Your task to perform on an android device: Turn off the flashlight Image 0: 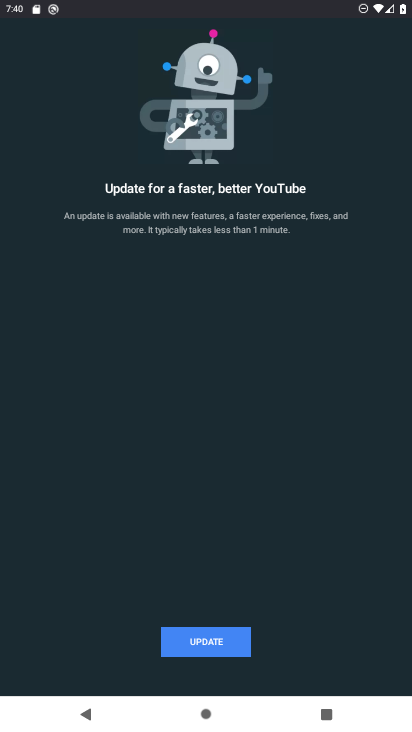
Step 0: press home button
Your task to perform on an android device: Turn off the flashlight Image 1: 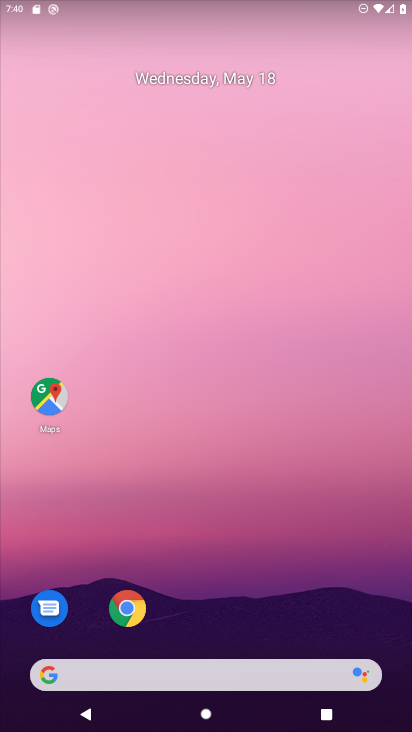
Step 1: drag from (311, 622) to (361, 82)
Your task to perform on an android device: Turn off the flashlight Image 2: 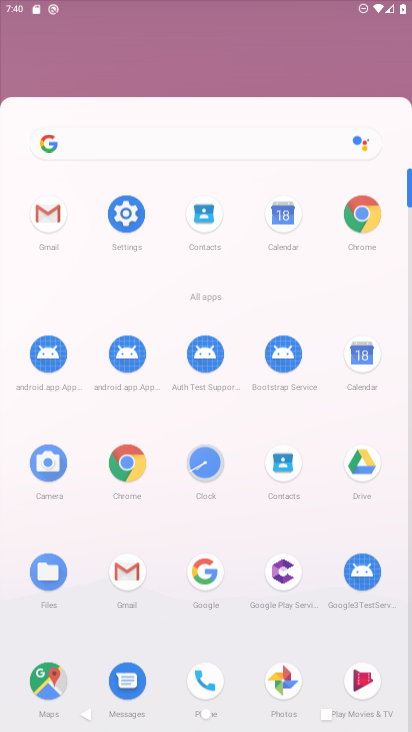
Step 2: drag from (360, 70) to (356, 494)
Your task to perform on an android device: Turn off the flashlight Image 3: 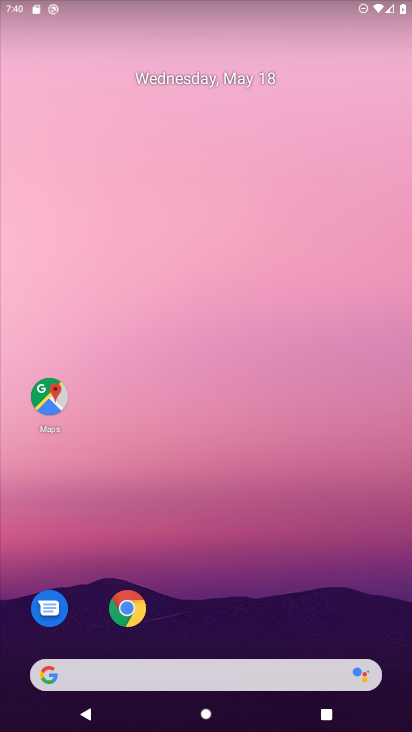
Step 3: drag from (364, 6) to (355, 425)
Your task to perform on an android device: Turn off the flashlight Image 4: 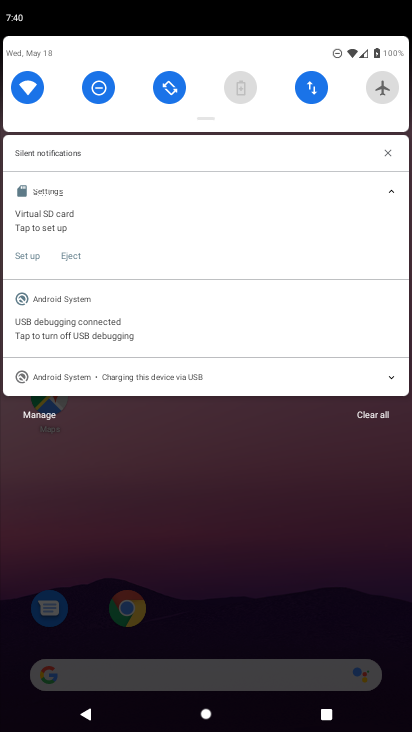
Step 4: drag from (273, 118) to (285, 536)
Your task to perform on an android device: Turn off the flashlight Image 5: 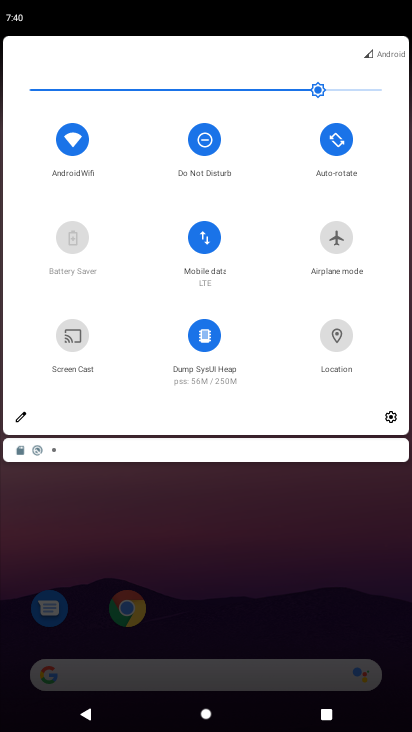
Step 5: click (23, 413)
Your task to perform on an android device: Turn off the flashlight Image 6: 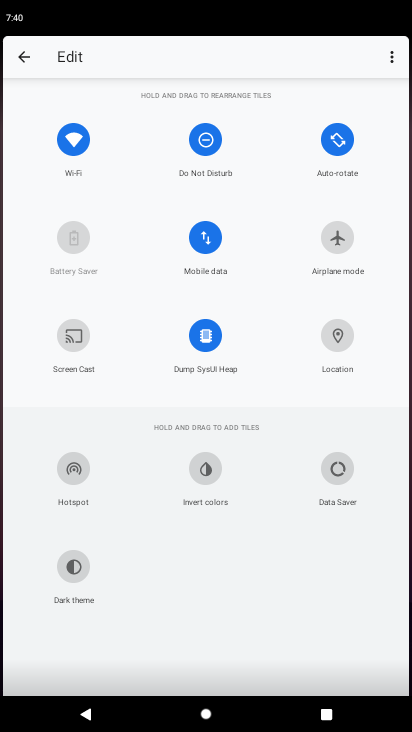
Step 6: task complete